Your task to perform on an android device: open app "Instagram" (install if not already installed) Image 0: 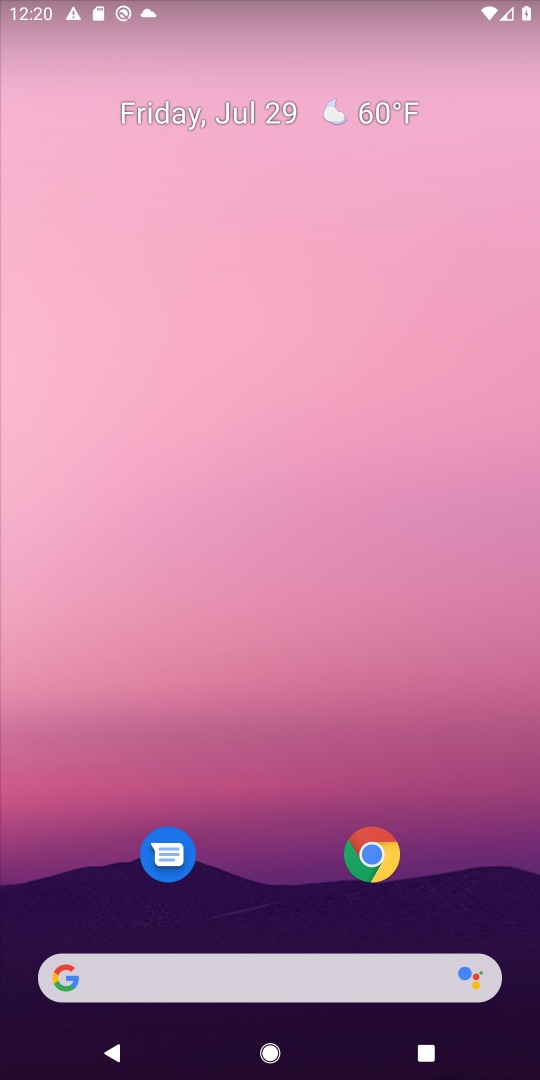
Step 0: drag from (254, 901) to (262, 184)
Your task to perform on an android device: open app "Instagram" (install if not already installed) Image 1: 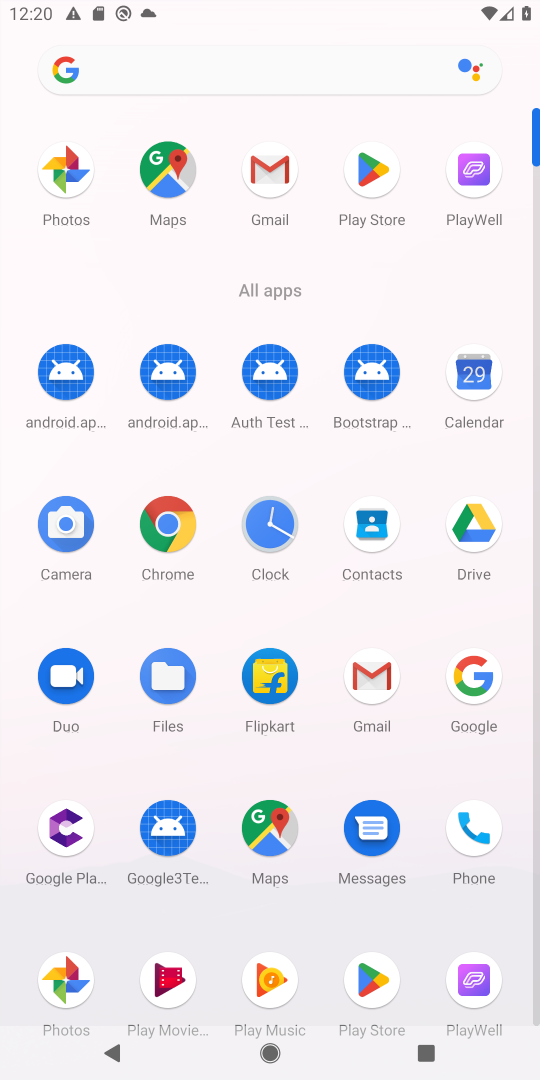
Step 1: click (369, 172)
Your task to perform on an android device: open app "Instagram" (install if not already installed) Image 2: 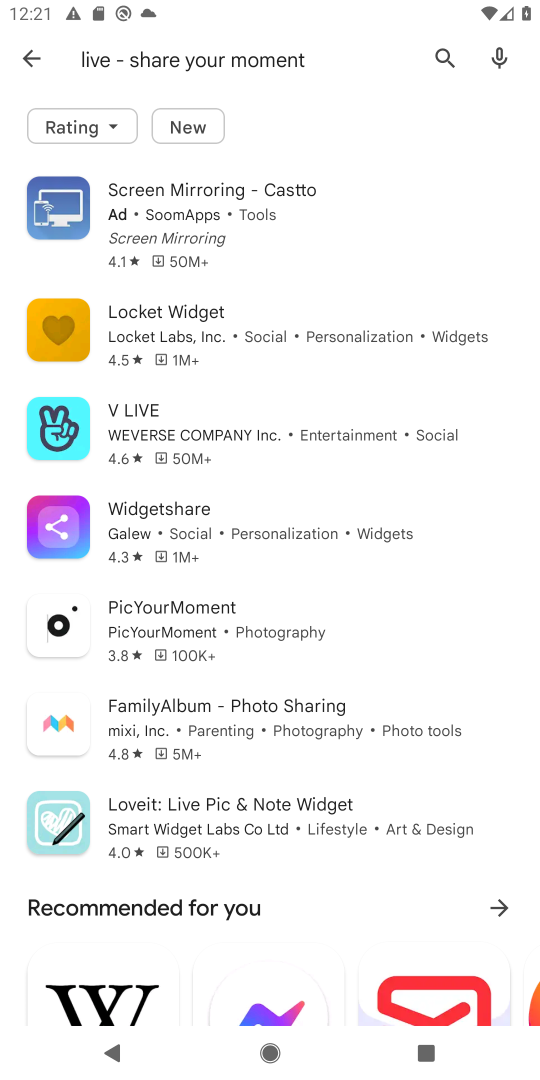
Step 2: click (435, 52)
Your task to perform on an android device: open app "Instagram" (install if not already installed) Image 3: 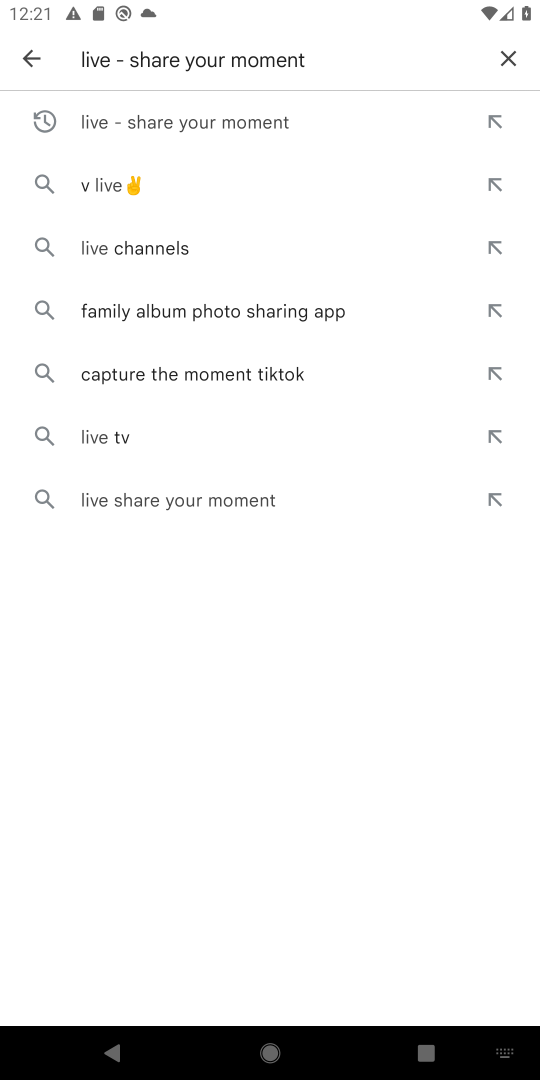
Step 3: click (506, 64)
Your task to perform on an android device: open app "Instagram" (install if not already installed) Image 4: 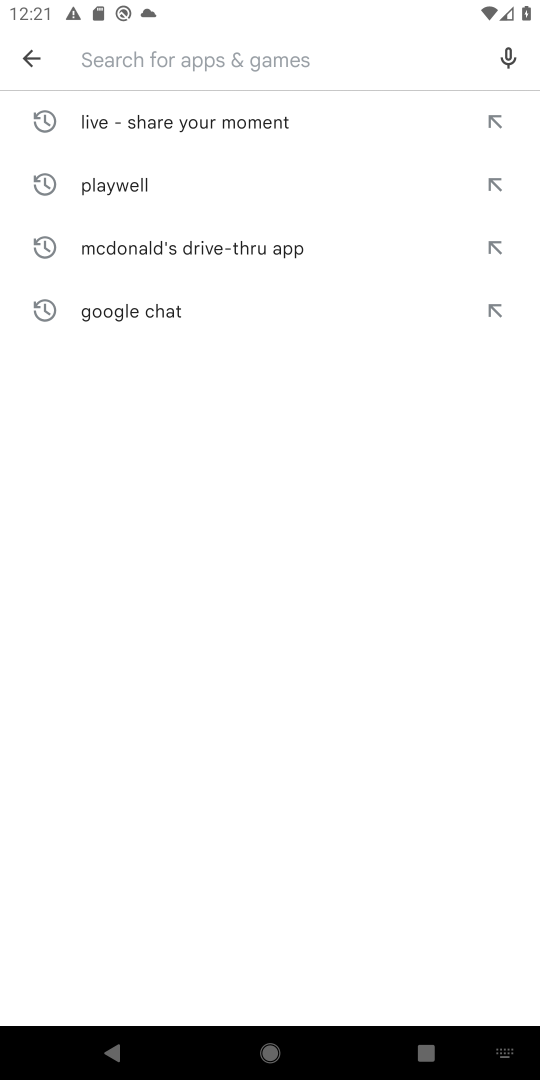
Step 4: type "intargram"
Your task to perform on an android device: open app "Instagram" (install if not already installed) Image 5: 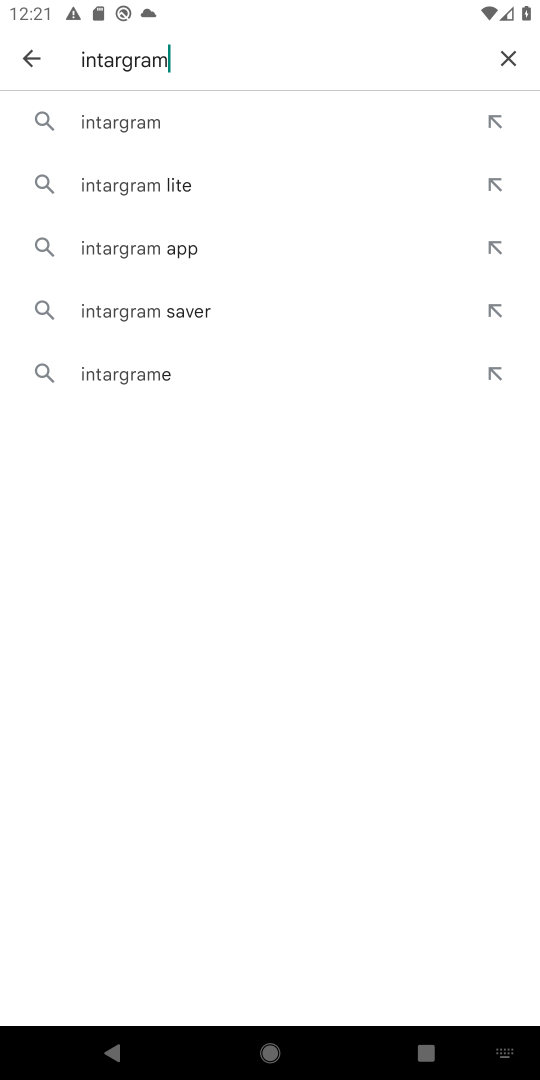
Step 5: click (202, 137)
Your task to perform on an android device: open app "Instagram" (install if not already installed) Image 6: 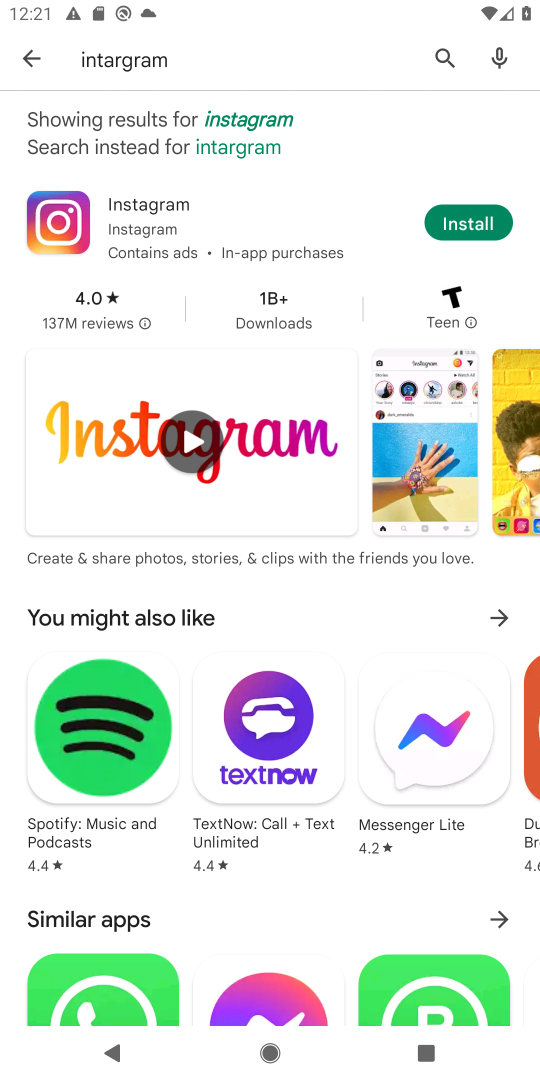
Step 6: click (140, 213)
Your task to perform on an android device: open app "Instagram" (install if not already installed) Image 7: 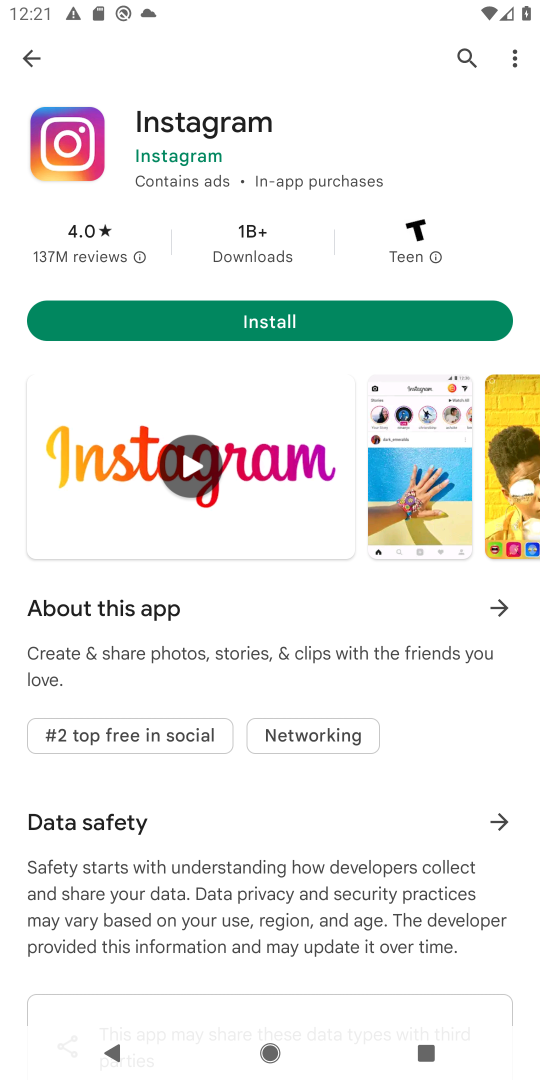
Step 7: click (230, 317)
Your task to perform on an android device: open app "Instagram" (install if not already installed) Image 8: 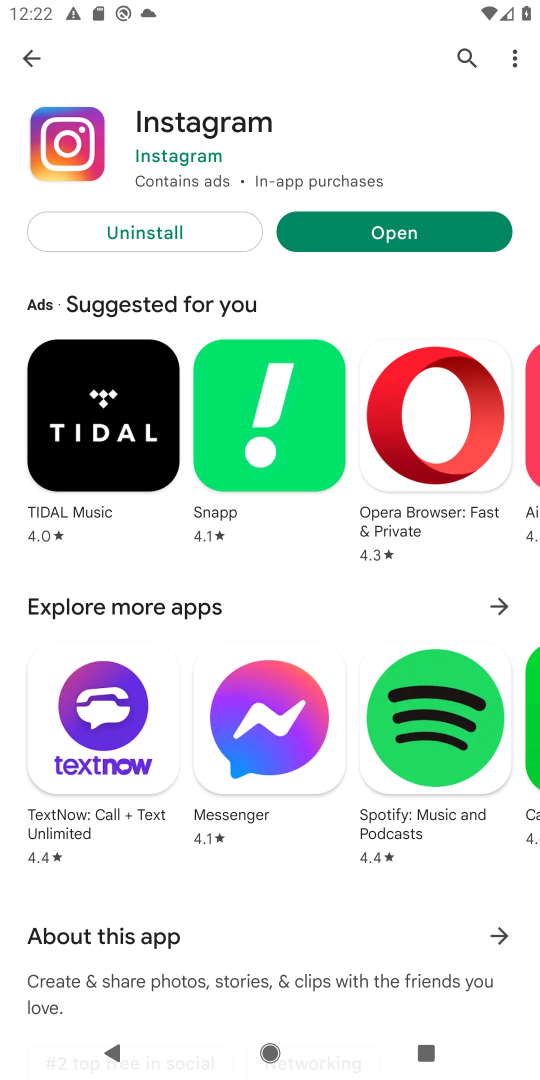
Step 8: click (380, 227)
Your task to perform on an android device: open app "Instagram" (install if not already installed) Image 9: 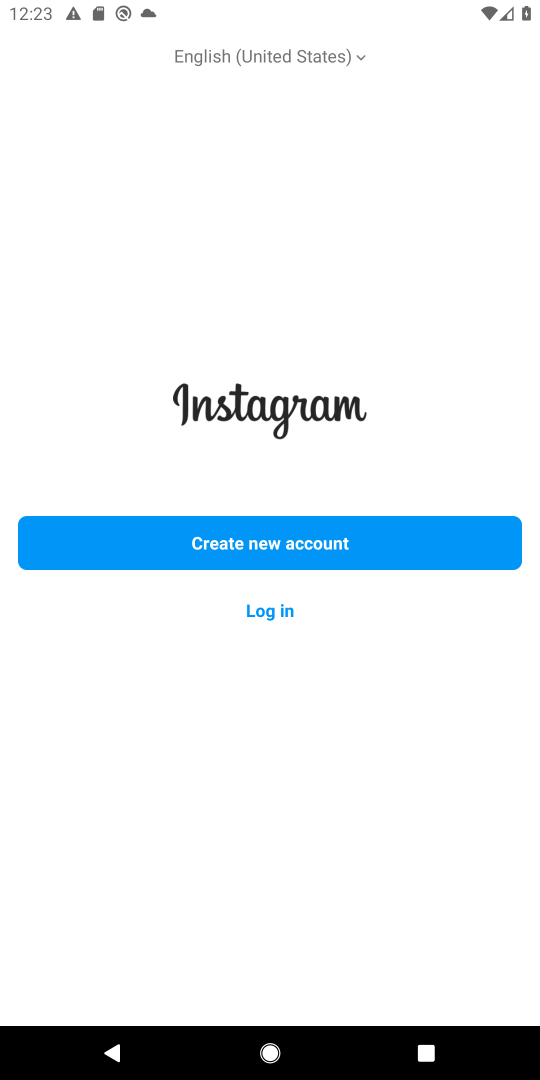
Step 9: task complete